Your task to perform on an android device: open device folders in google photos Image 0: 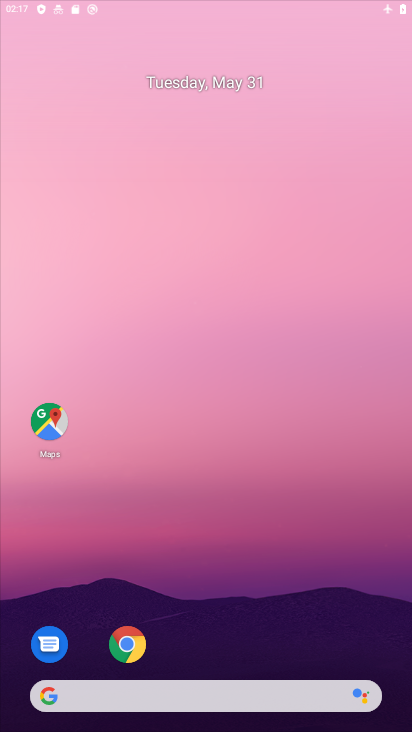
Step 0: drag from (286, 614) to (258, 119)
Your task to perform on an android device: open device folders in google photos Image 1: 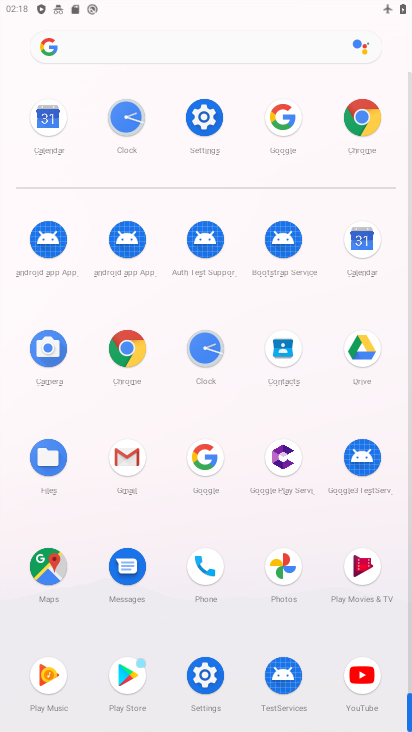
Step 1: click (277, 577)
Your task to perform on an android device: open device folders in google photos Image 2: 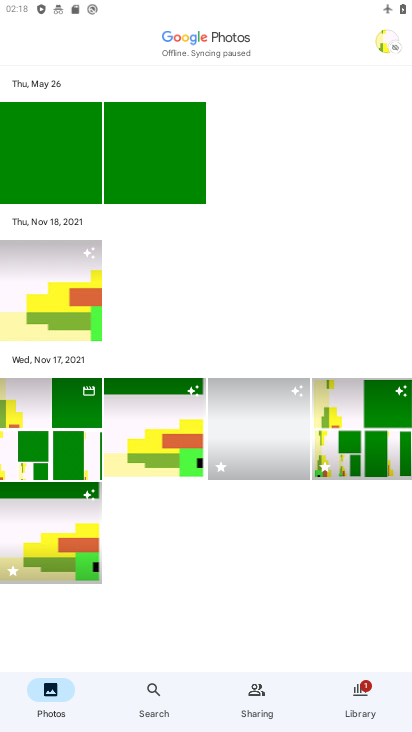
Step 2: click (361, 702)
Your task to perform on an android device: open device folders in google photos Image 3: 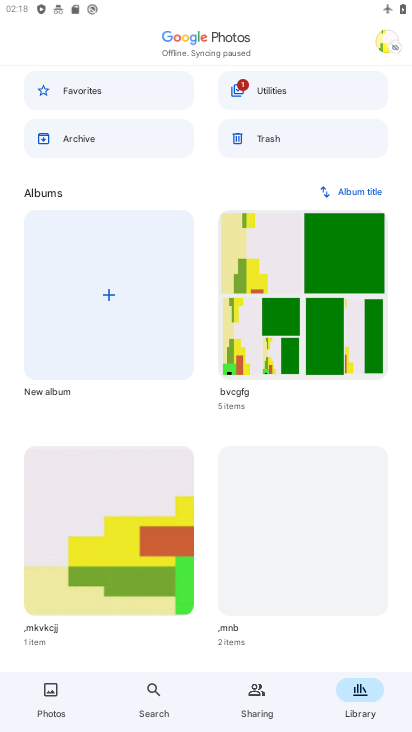
Step 3: drag from (284, 489) to (288, 8)
Your task to perform on an android device: open device folders in google photos Image 4: 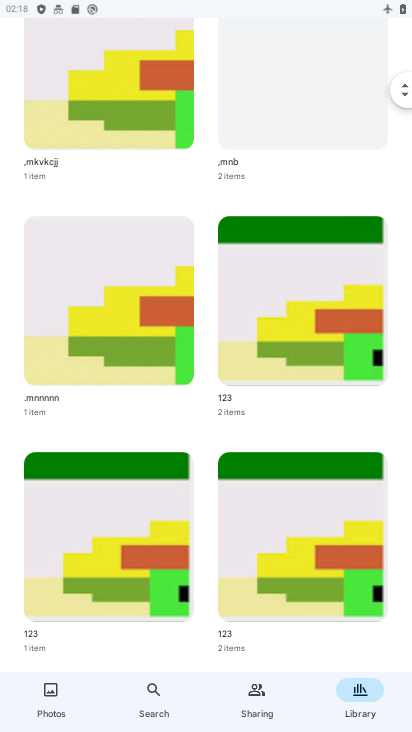
Step 4: drag from (254, 537) to (278, 7)
Your task to perform on an android device: open device folders in google photos Image 5: 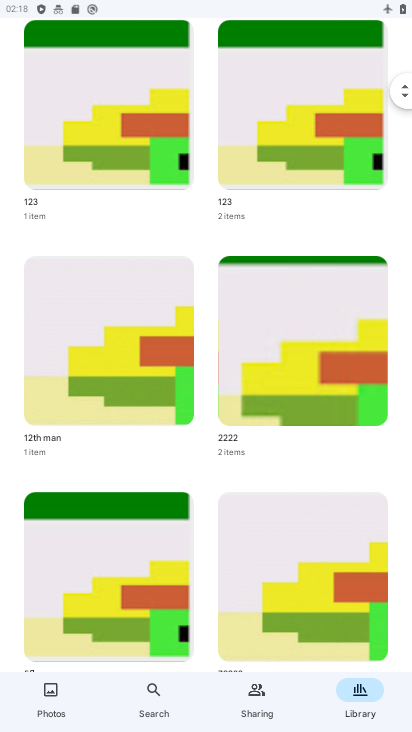
Step 5: drag from (208, 530) to (236, 707)
Your task to perform on an android device: open device folders in google photos Image 6: 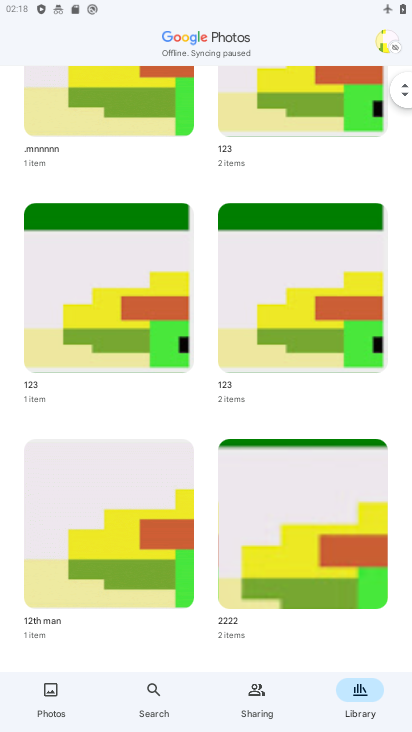
Step 6: drag from (290, 216) to (297, 691)
Your task to perform on an android device: open device folders in google photos Image 7: 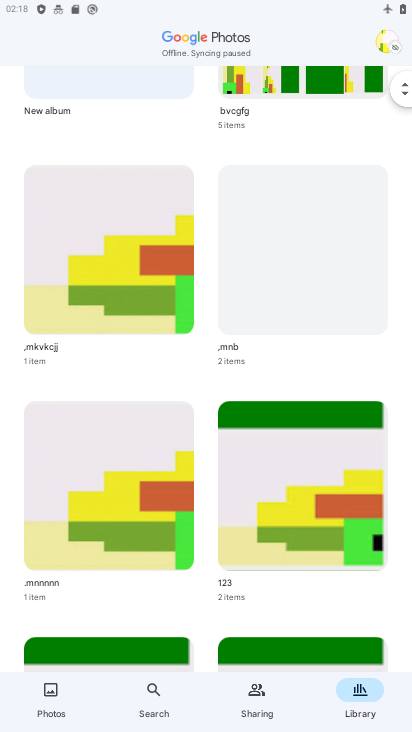
Step 7: drag from (274, 236) to (279, 618)
Your task to perform on an android device: open device folders in google photos Image 8: 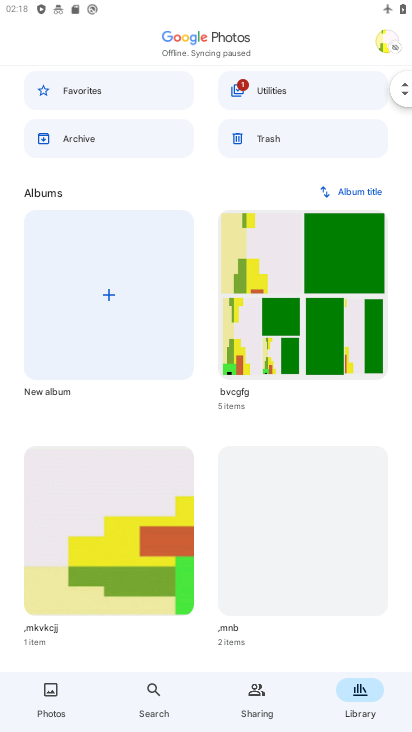
Step 8: drag from (270, 251) to (265, 563)
Your task to perform on an android device: open device folders in google photos Image 9: 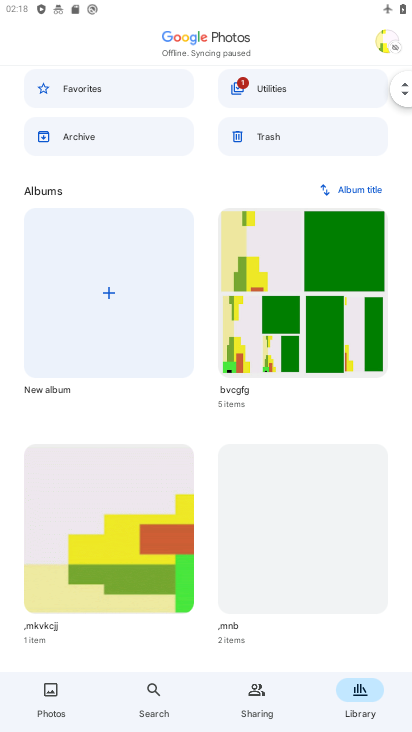
Step 9: click (311, 93)
Your task to perform on an android device: open device folders in google photos Image 10: 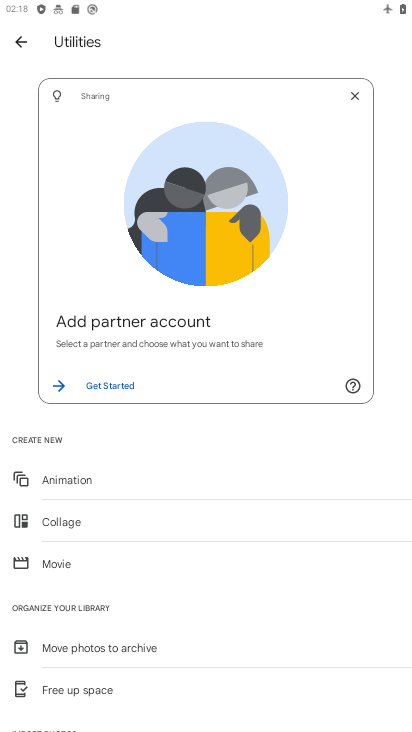
Step 10: drag from (198, 633) to (210, 441)
Your task to perform on an android device: open device folders in google photos Image 11: 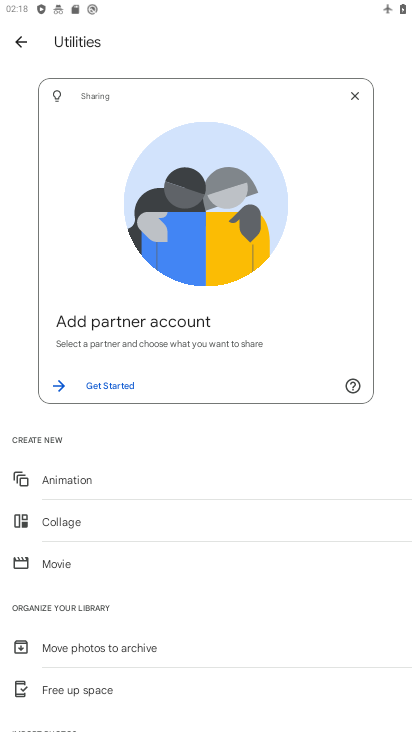
Step 11: click (23, 40)
Your task to perform on an android device: open device folders in google photos Image 12: 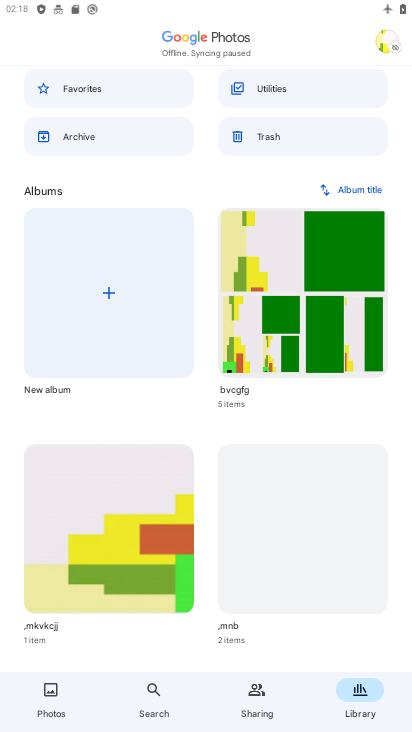
Step 12: click (326, 82)
Your task to perform on an android device: open device folders in google photos Image 13: 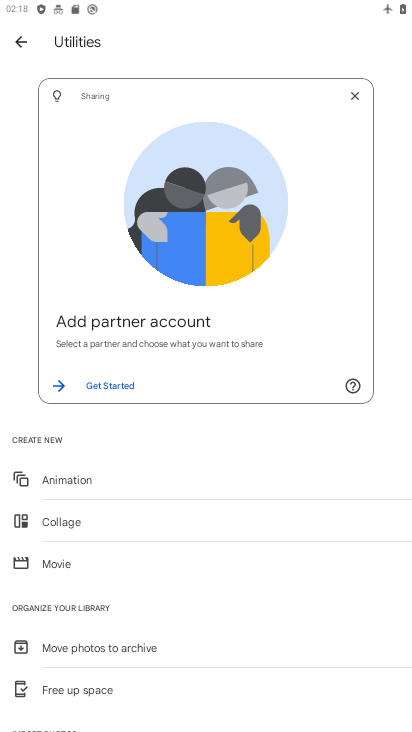
Step 13: drag from (252, 610) to (297, 159)
Your task to perform on an android device: open device folders in google photos Image 14: 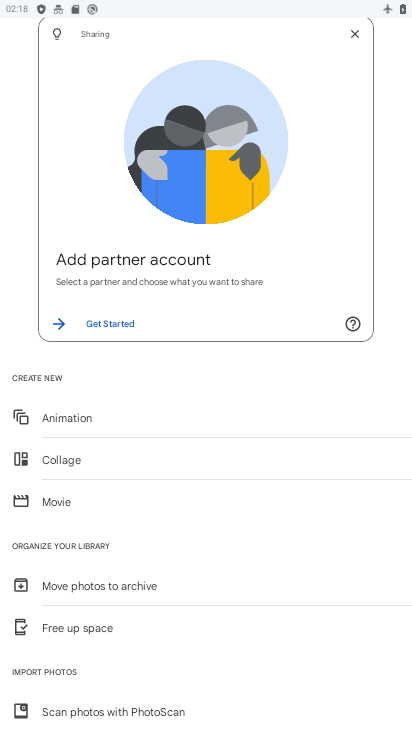
Step 14: press back button
Your task to perform on an android device: open device folders in google photos Image 15: 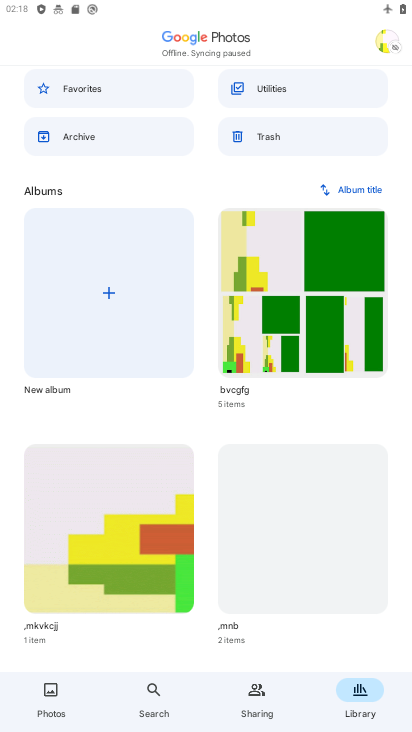
Step 15: click (370, 682)
Your task to perform on an android device: open device folders in google photos Image 16: 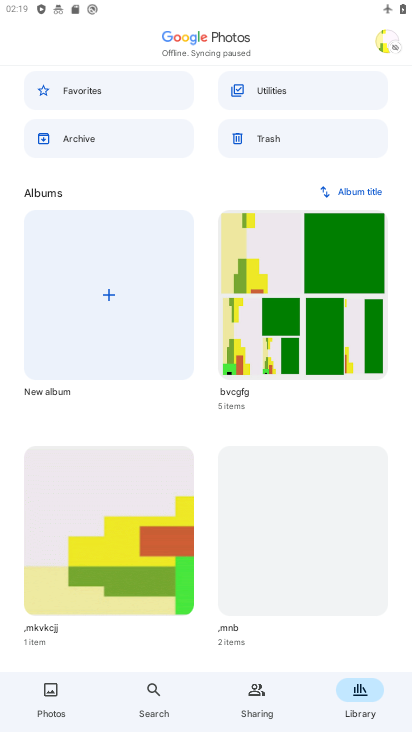
Step 16: click (137, 86)
Your task to perform on an android device: open device folders in google photos Image 17: 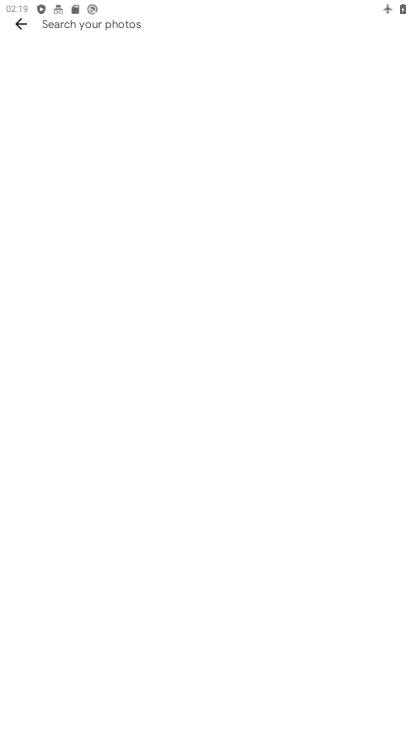
Step 17: click (20, 21)
Your task to perform on an android device: open device folders in google photos Image 18: 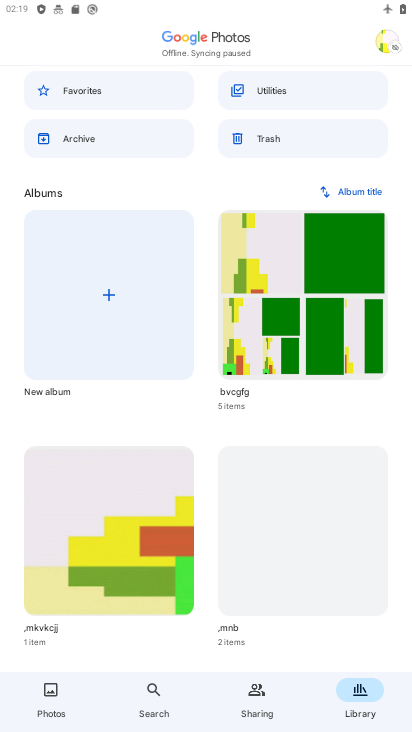
Step 18: click (315, 101)
Your task to perform on an android device: open device folders in google photos Image 19: 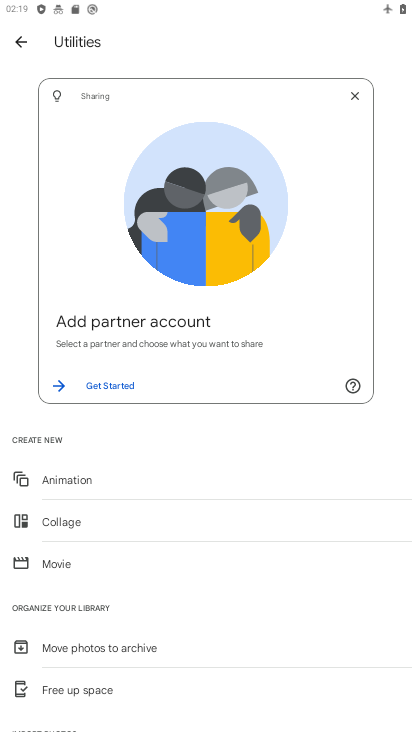
Step 19: drag from (235, 658) to (271, 283)
Your task to perform on an android device: open device folders in google photos Image 20: 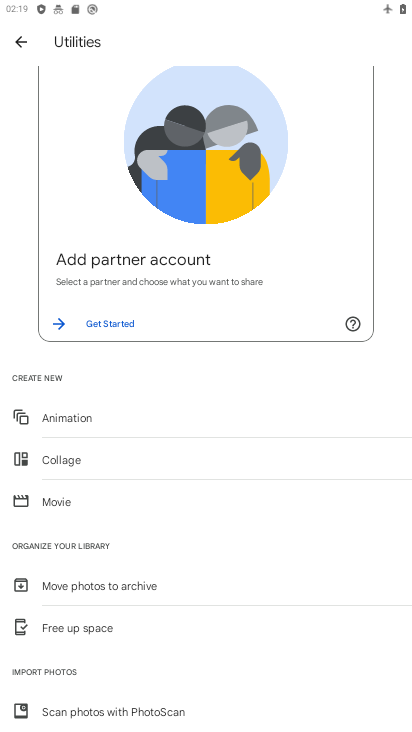
Step 20: drag from (213, 301) to (235, 561)
Your task to perform on an android device: open device folders in google photos Image 21: 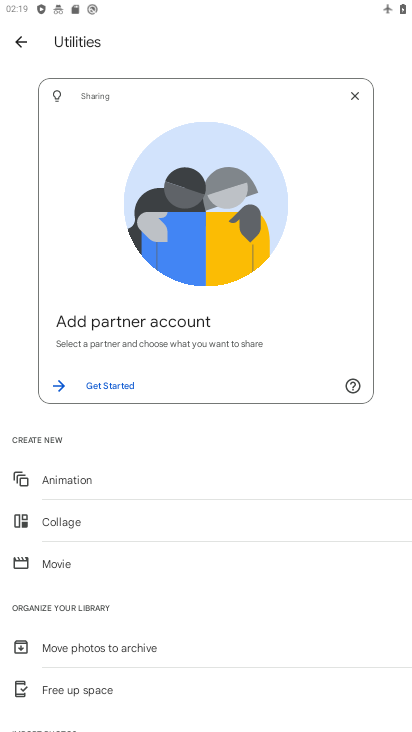
Step 21: drag from (134, 615) to (195, 353)
Your task to perform on an android device: open device folders in google photos Image 22: 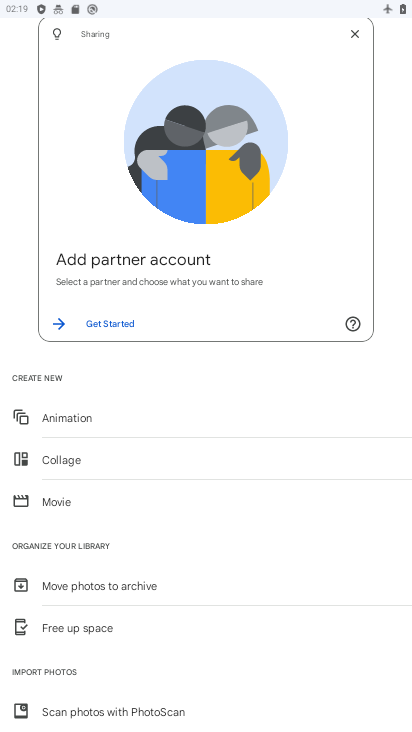
Step 22: click (111, 584)
Your task to perform on an android device: open device folders in google photos Image 23: 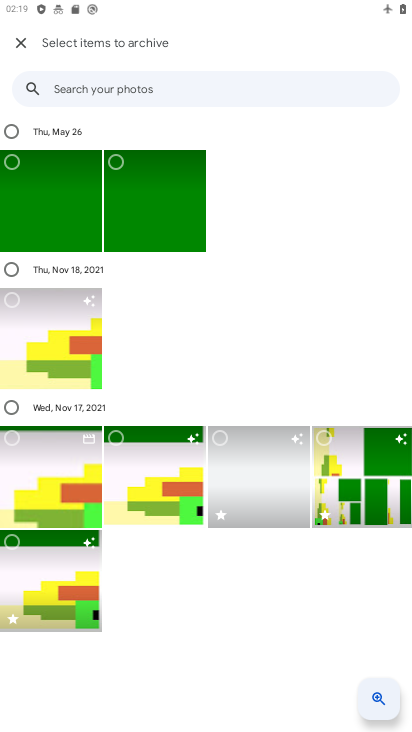
Step 23: click (20, 38)
Your task to perform on an android device: open device folders in google photos Image 24: 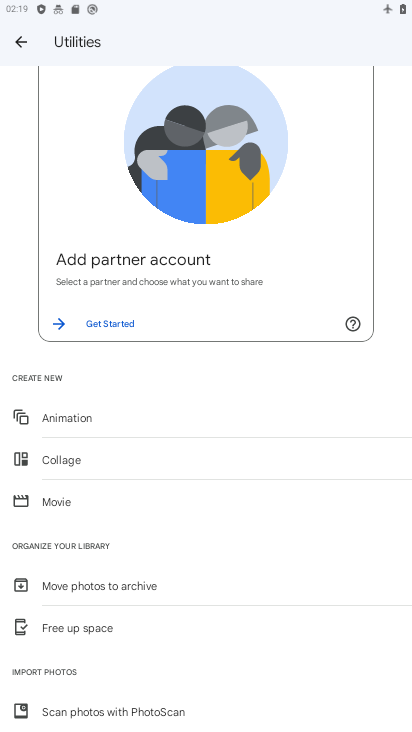
Step 24: click (22, 40)
Your task to perform on an android device: open device folders in google photos Image 25: 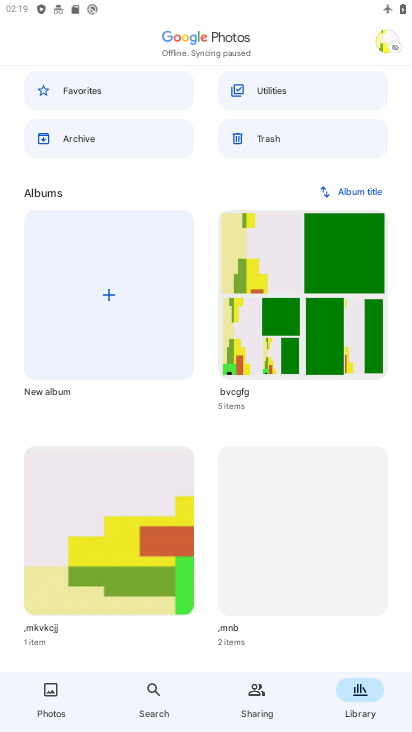
Step 25: click (388, 42)
Your task to perform on an android device: open device folders in google photos Image 26: 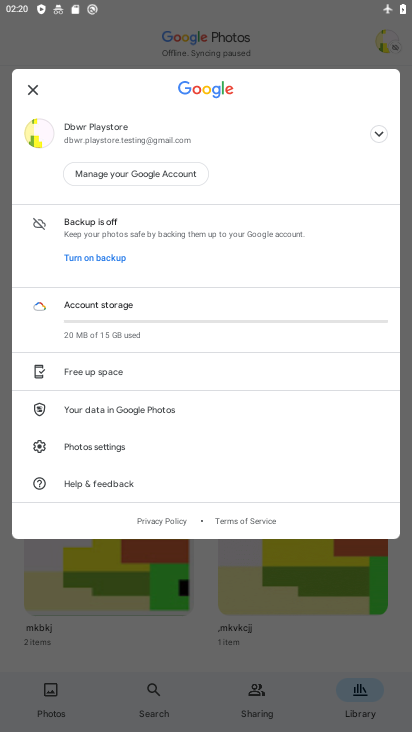
Step 26: click (164, 577)
Your task to perform on an android device: open device folders in google photos Image 27: 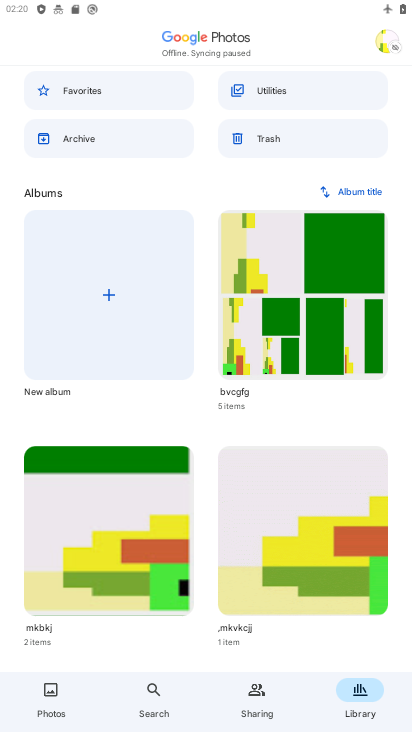
Step 27: task complete